Your task to perform on an android device: Search for "usb-a" on newegg, select the first entry, and add it to the cart. Image 0: 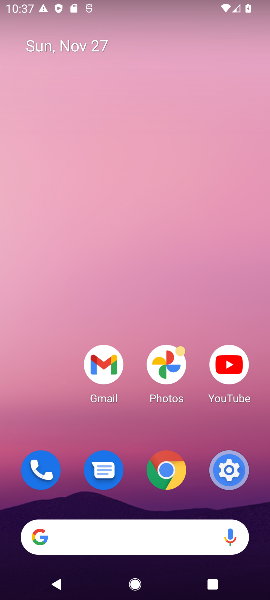
Step 0: click (147, 540)
Your task to perform on an android device: Search for "usb-a" on newegg, select the first entry, and add it to the cart. Image 1: 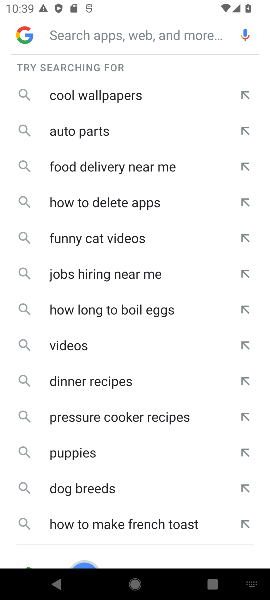
Step 1: type "newegg"
Your task to perform on an android device: Search for "usb-a" on newegg, select the first entry, and add it to the cart. Image 2: 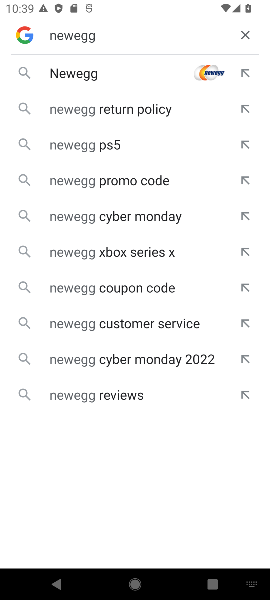
Step 2: click (87, 66)
Your task to perform on an android device: Search for "usb-a" on newegg, select the first entry, and add it to the cart. Image 3: 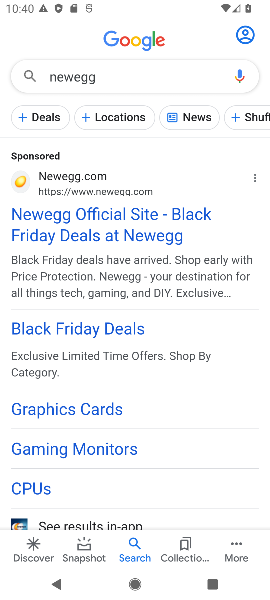
Step 3: task complete